Your task to perform on an android device: Open Google Maps and go to "Timeline" Image 0: 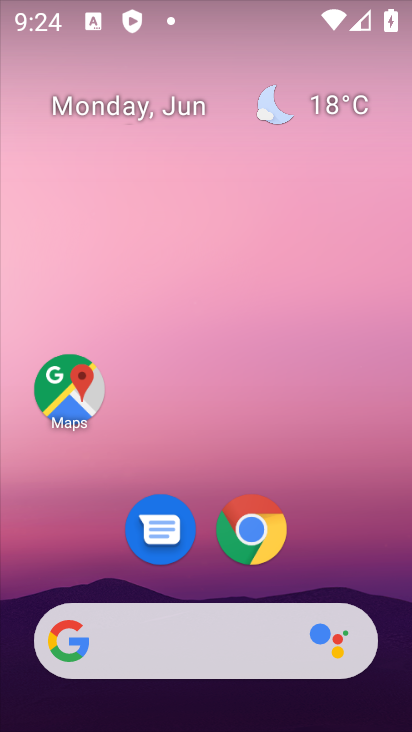
Step 0: click (57, 387)
Your task to perform on an android device: Open Google Maps and go to "Timeline" Image 1: 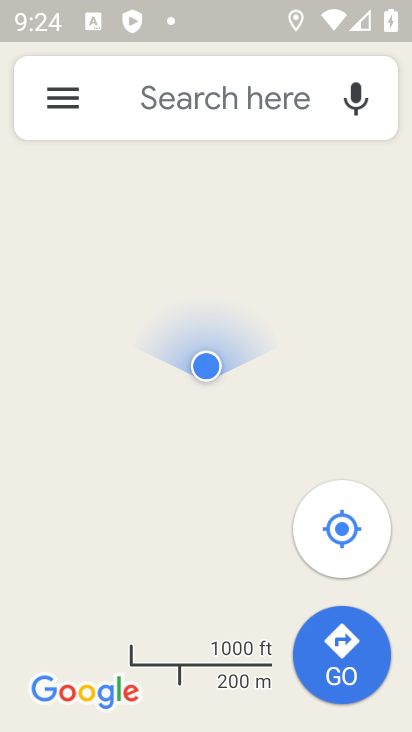
Step 1: click (53, 92)
Your task to perform on an android device: Open Google Maps and go to "Timeline" Image 2: 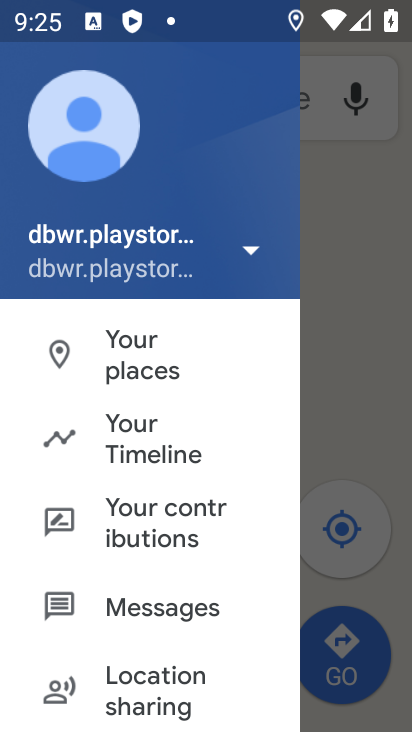
Step 2: click (163, 457)
Your task to perform on an android device: Open Google Maps and go to "Timeline" Image 3: 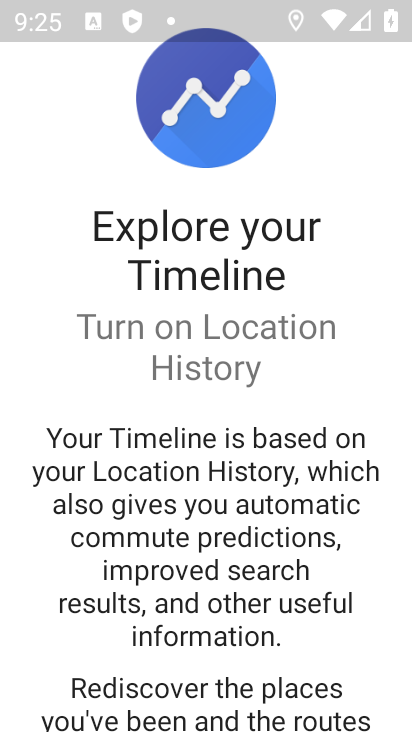
Step 3: task complete